Your task to perform on an android device: Play the new Taylor Swift video on YouTube Image 0: 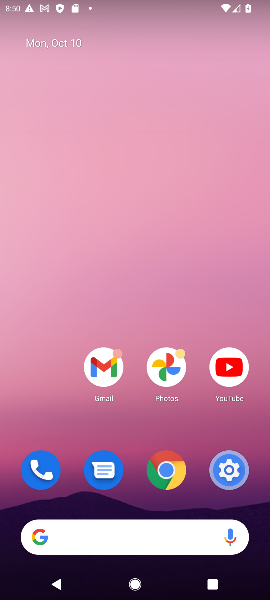
Step 0: click (167, 457)
Your task to perform on an android device: Play the new Taylor Swift video on YouTube Image 1: 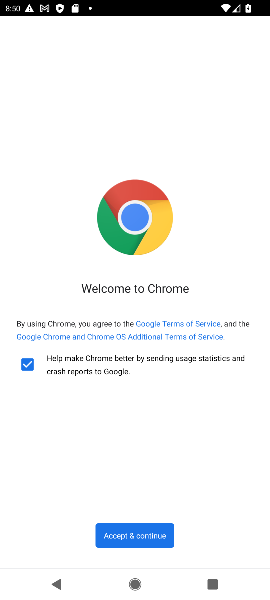
Step 1: press home button
Your task to perform on an android device: Play the new Taylor Swift video on YouTube Image 2: 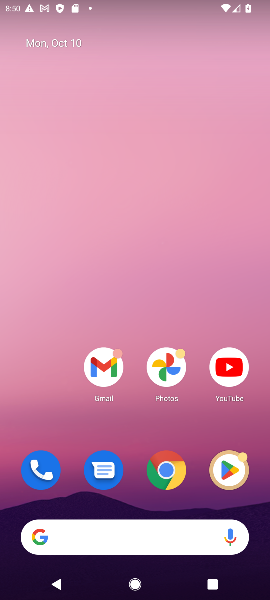
Step 2: click (229, 374)
Your task to perform on an android device: Play the new Taylor Swift video on YouTube Image 3: 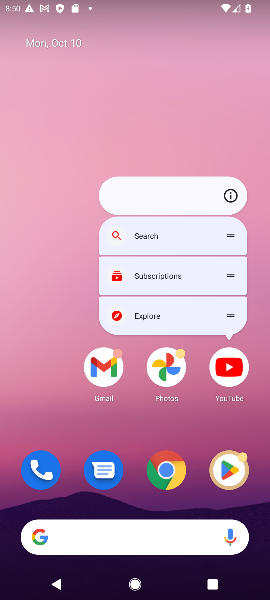
Step 3: drag from (126, 521) to (166, 57)
Your task to perform on an android device: Play the new Taylor Swift video on YouTube Image 4: 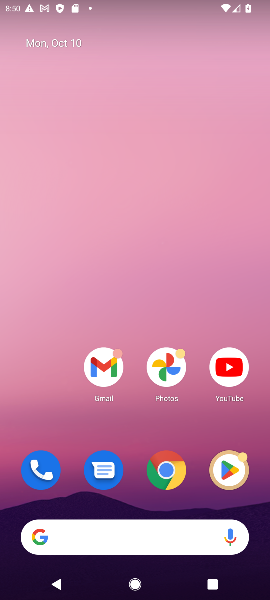
Step 4: drag from (149, 505) to (132, 38)
Your task to perform on an android device: Play the new Taylor Swift video on YouTube Image 5: 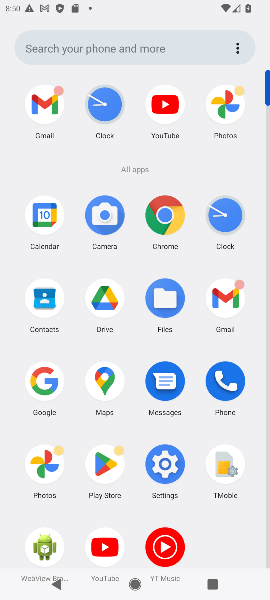
Step 5: click (163, 111)
Your task to perform on an android device: Play the new Taylor Swift video on YouTube Image 6: 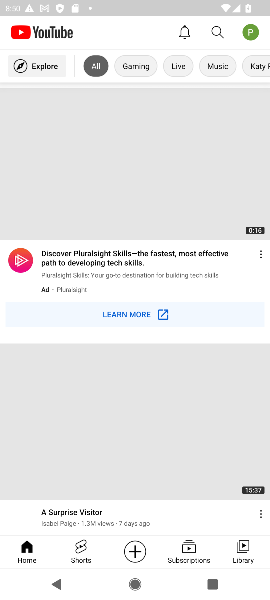
Step 6: click (210, 33)
Your task to perform on an android device: Play the new Taylor Swift video on YouTube Image 7: 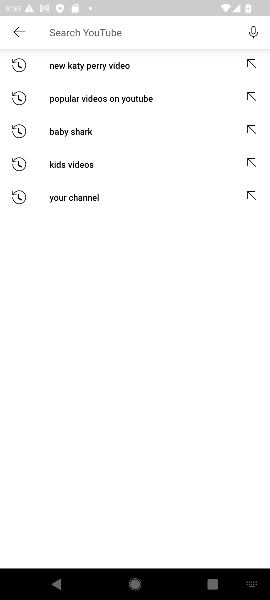
Step 7: type "taylor swift"
Your task to perform on an android device: Play the new Taylor Swift video on YouTube Image 8: 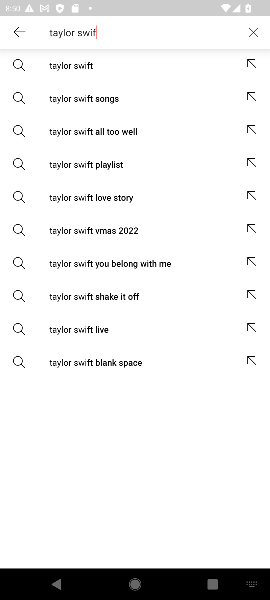
Step 8: type ""
Your task to perform on an android device: Play the new Taylor Swift video on YouTube Image 9: 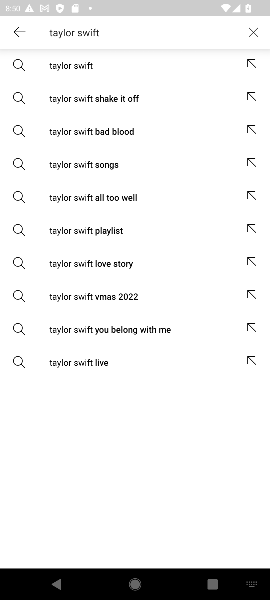
Step 9: click (89, 67)
Your task to perform on an android device: Play the new Taylor Swift video on YouTube Image 10: 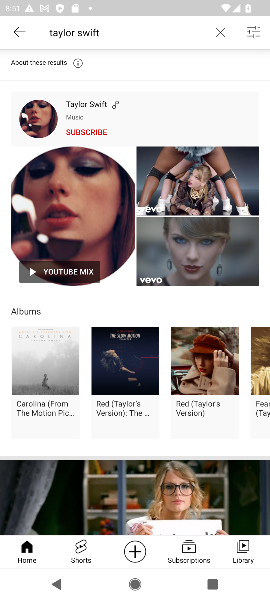
Step 10: click (80, 102)
Your task to perform on an android device: Play the new Taylor Swift video on YouTube Image 11: 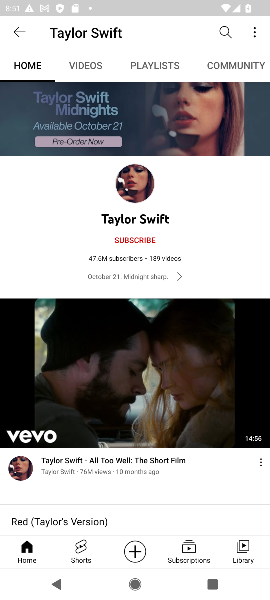
Step 11: click (89, 56)
Your task to perform on an android device: Play the new Taylor Swift video on YouTube Image 12: 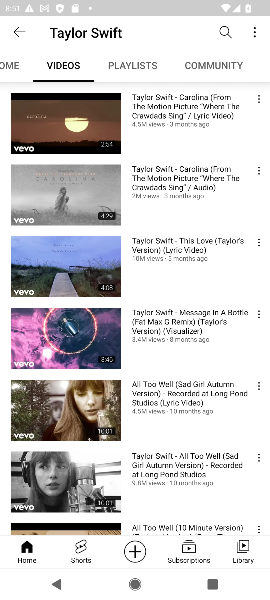
Step 12: click (203, 103)
Your task to perform on an android device: Play the new Taylor Swift video on YouTube Image 13: 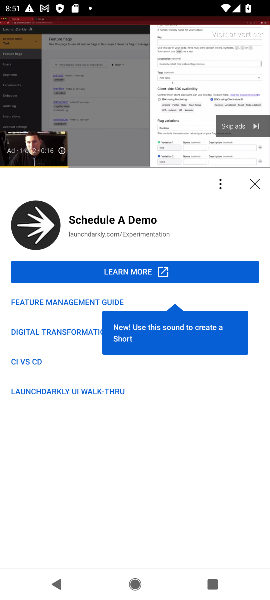
Step 13: click (246, 133)
Your task to perform on an android device: Play the new Taylor Swift video on YouTube Image 14: 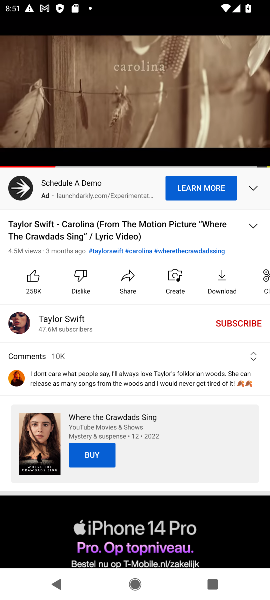
Step 14: drag from (158, 486) to (161, 249)
Your task to perform on an android device: Play the new Taylor Swift video on YouTube Image 15: 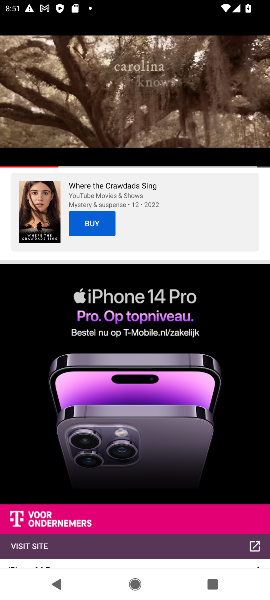
Step 15: drag from (187, 441) to (166, 252)
Your task to perform on an android device: Play the new Taylor Swift video on YouTube Image 16: 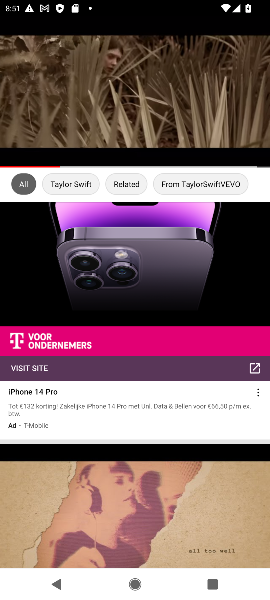
Step 16: drag from (185, 455) to (167, 254)
Your task to perform on an android device: Play the new Taylor Swift video on YouTube Image 17: 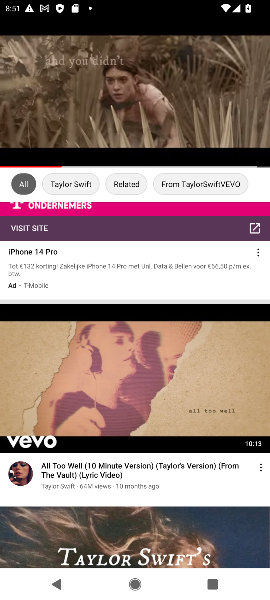
Step 17: drag from (193, 481) to (190, 254)
Your task to perform on an android device: Play the new Taylor Swift video on YouTube Image 18: 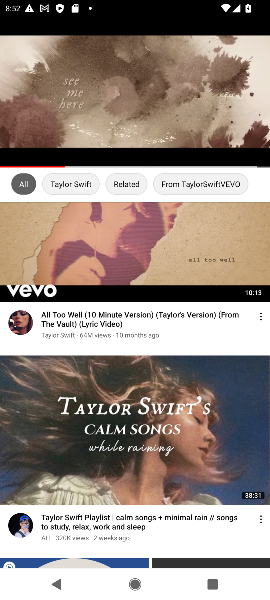
Step 18: drag from (183, 481) to (194, 249)
Your task to perform on an android device: Play the new Taylor Swift video on YouTube Image 19: 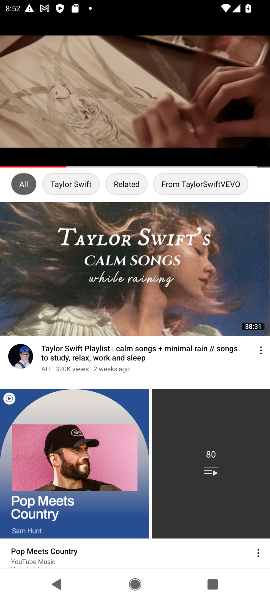
Step 19: drag from (214, 427) to (241, 262)
Your task to perform on an android device: Play the new Taylor Swift video on YouTube Image 20: 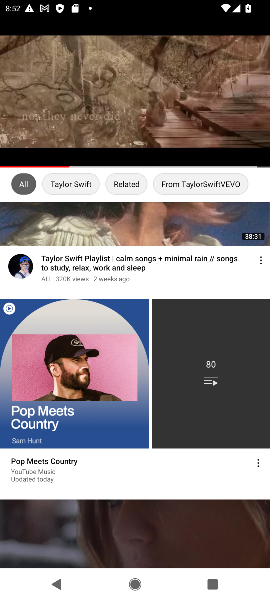
Step 20: drag from (233, 452) to (226, 280)
Your task to perform on an android device: Play the new Taylor Swift video on YouTube Image 21: 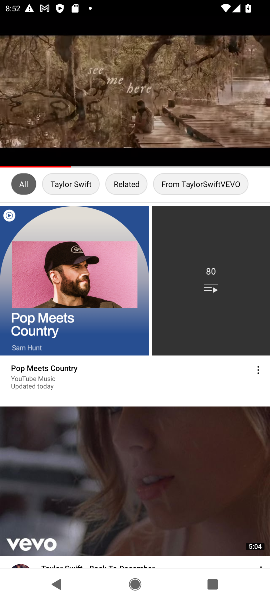
Step 21: drag from (224, 424) to (237, 225)
Your task to perform on an android device: Play the new Taylor Swift video on YouTube Image 22: 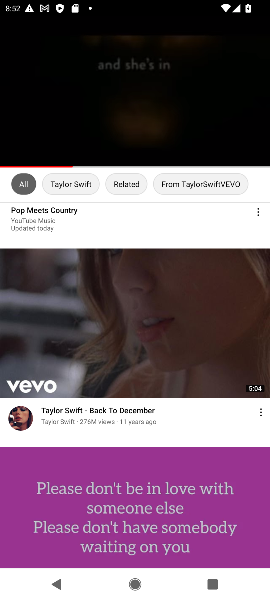
Step 22: drag from (215, 500) to (234, 185)
Your task to perform on an android device: Play the new Taylor Swift video on YouTube Image 23: 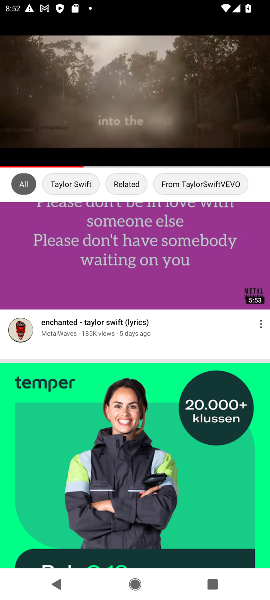
Step 23: drag from (166, 498) to (189, 92)
Your task to perform on an android device: Play the new Taylor Swift video on YouTube Image 24: 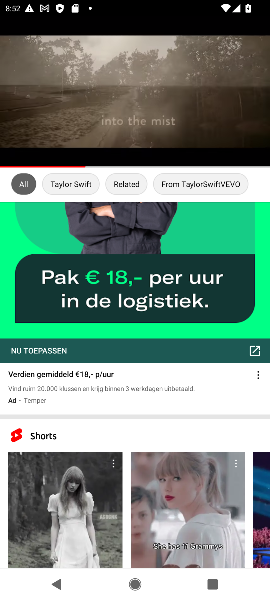
Step 24: drag from (170, 228) to (190, 84)
Your task to perform on an android device: Play the new Taylor Swift video on YouTube Image 25: 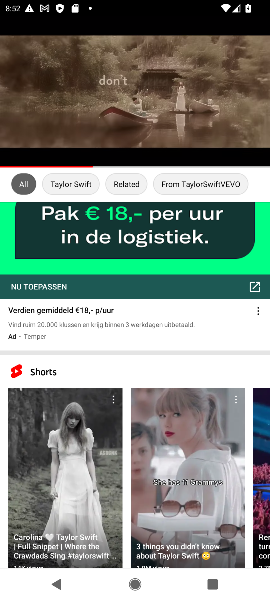
Step 25: drag from (110, 444) to (149, 71)
Your task to perform on an android device: Play the new Taylor Swift video on YouTube Image 26: 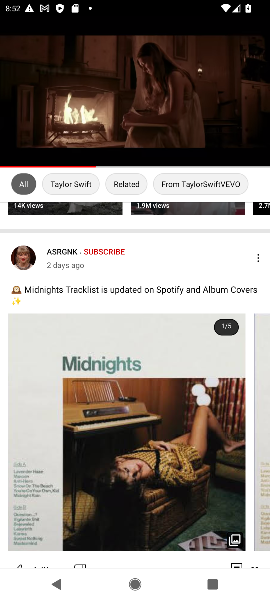
Step 26: drag from (185, 301) to (175, 31)
Your task to perform on an android device: Play the new Taylor Swift video on YouTube Image 27: 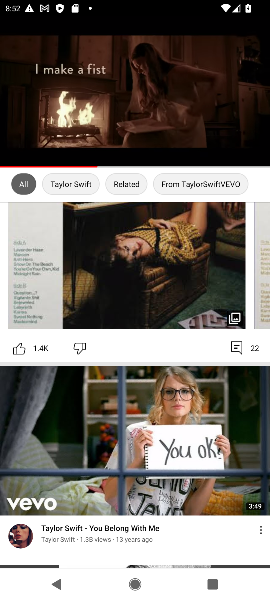
Step 27: drag from (155, 54) to (196, 24)
Your task to perform on an android device: Play the new Taylor Swift video on YouTube Image 28: 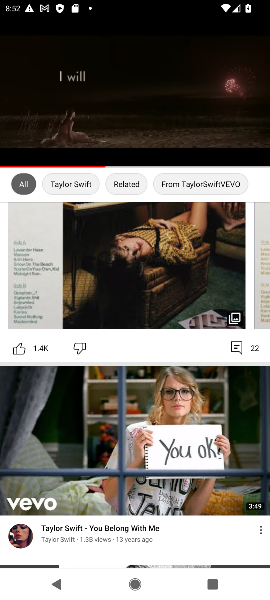
Step 28: drag from (139, 145) to (154, 48)
Your task to perform on an android device: Play the new Taylor Swift video on YouTube Image 29: 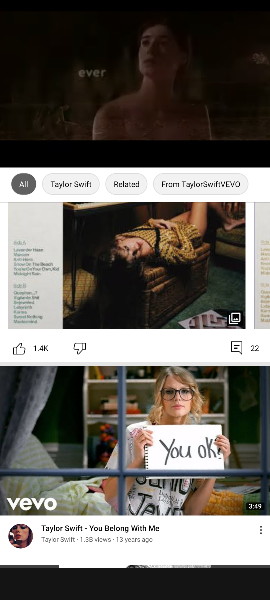
Step 29: drag from (171, 324) to (176, 145)
Your task to perform on an android device: Play the new Taylor Swift video on YouTube Image 30: 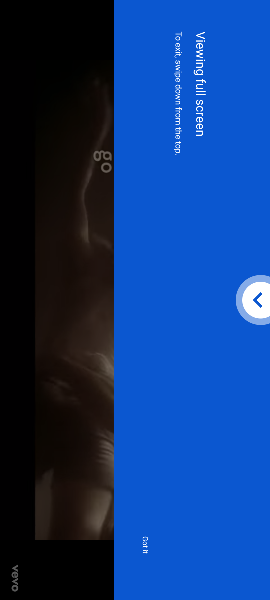
Step 30: drag from (172, 344) to (170, 142)
Your task to perform on an android device: Play the new Taylor Swift video on YouTube Image 31: 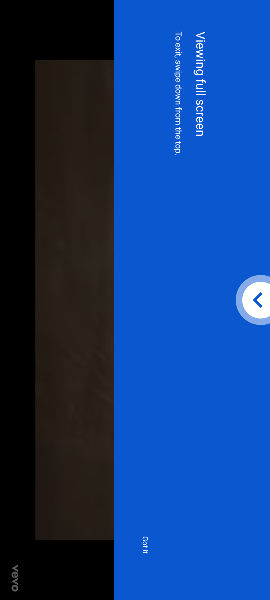
Step 31: click (254, 308)
Your task to perform on an android device: Play the new Taylor Swift video on YouTube Image 32: 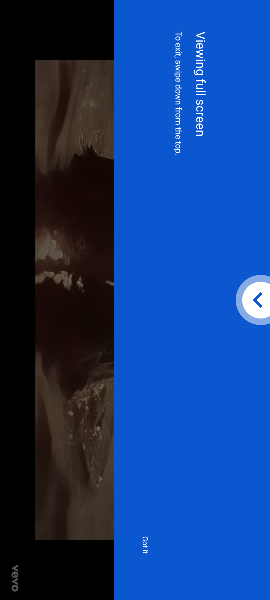
Step 32: task complete